Your task to perform on an android device: change text size in settings app Image 0: 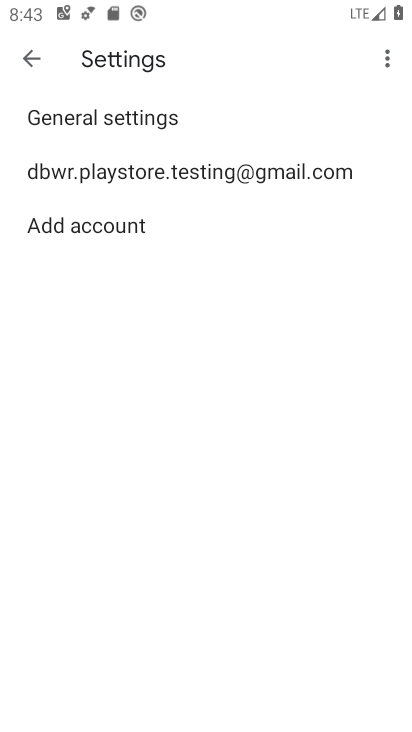
Step 0: press home button
Your task to perform on an android device: change text size in settings app Image 1: 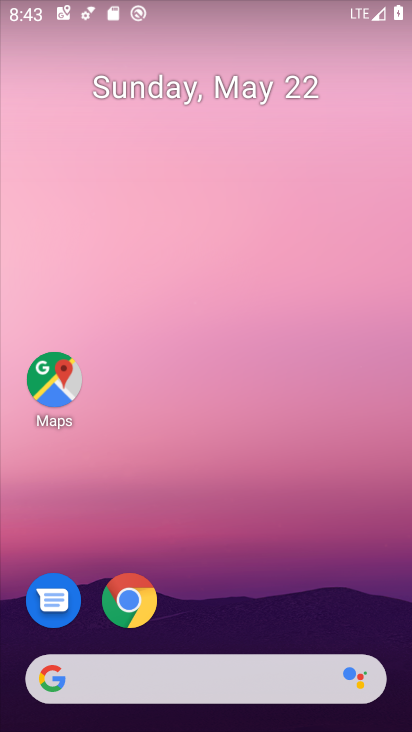
Step 1: drag from (145, 598) to (181, 408)
Your task to perform on an android device: change text size in settings app Image 2: 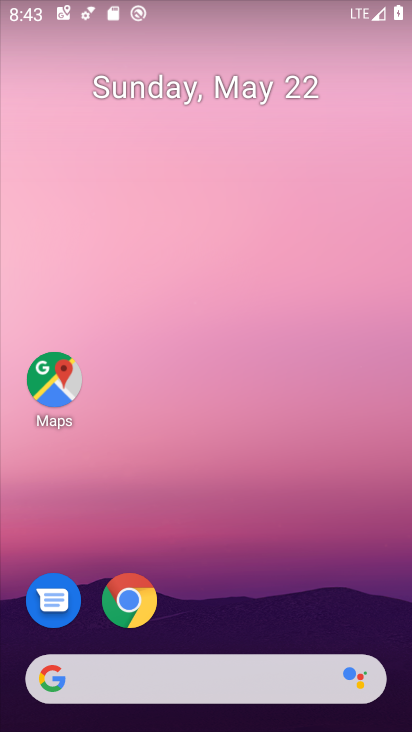
Step 2: drag from (232, 652) to (270, 316)
Your task to perform on an android device: change text size in settings app Image 3: 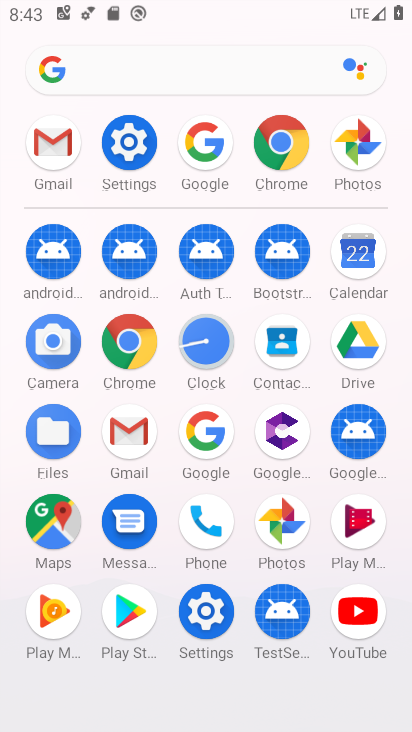
Step 3: click (131, 147)
Your task to perform on an android device: change text size in settings app Image 4: 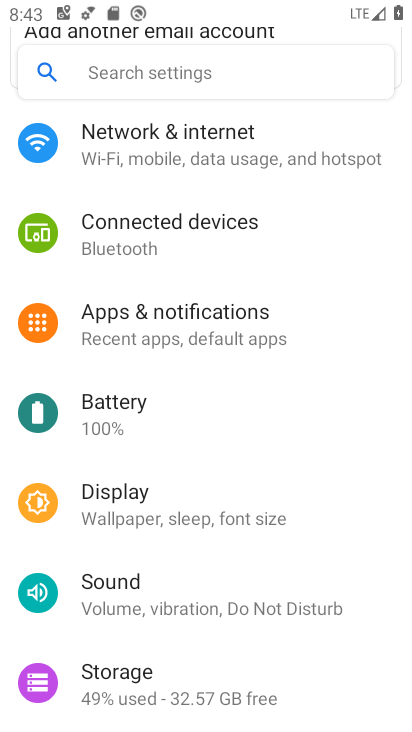
Step 4: drag from (107, 700) to (208, 346)
Your task to perform on an android device: change text size in settings app Image 5: 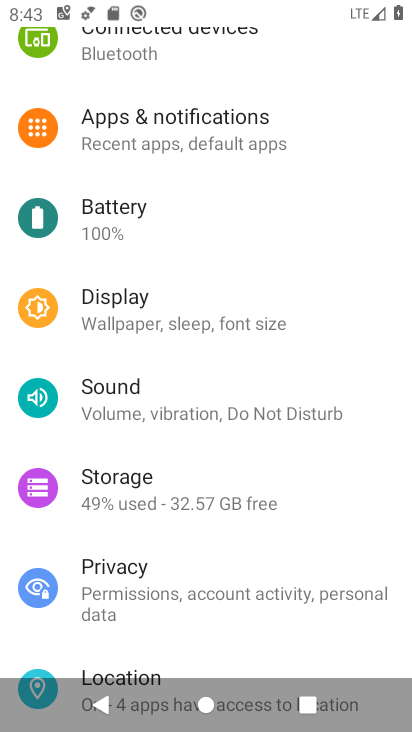
Step 5: drag from (148, 690) to (257, 305)
Your task to perform on an android device: change text size in settings app Image 6: 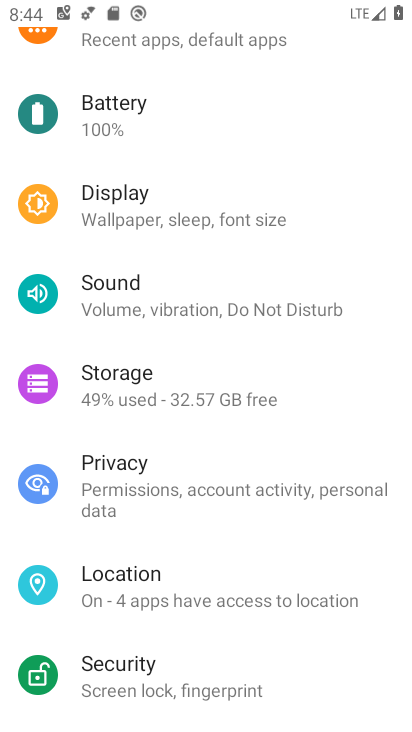
Step 6: drag from (129, 704) to (219, 228)
Your task to perform on an android device: change text size in settings app Image 7: 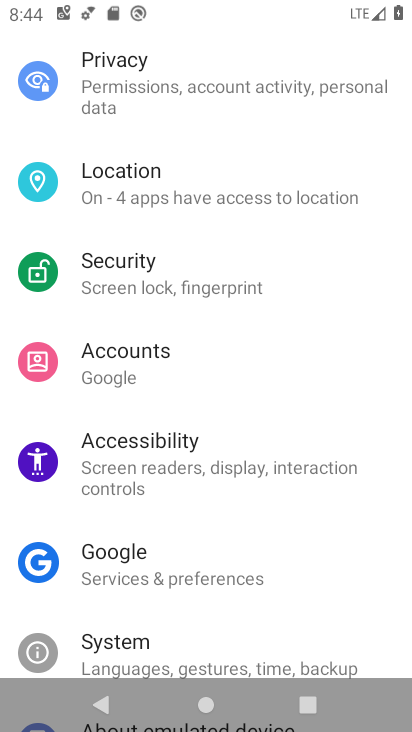
Step 7: drag from (208, 611) to (248, 238)
Your task to perform on an android device: change text size in settings app Image 8: 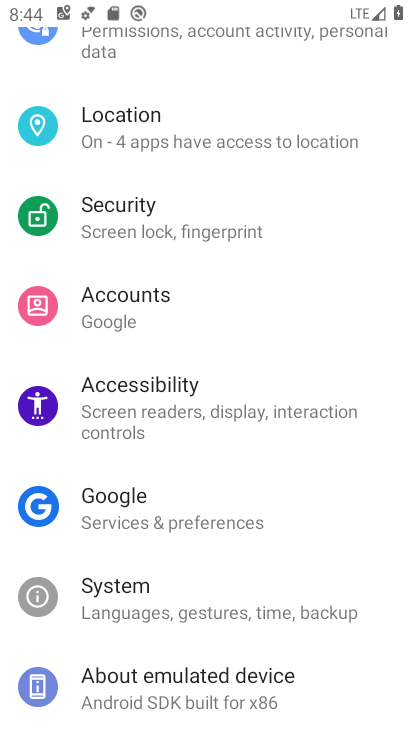
Step 8: click (141, 413)
Your task to perform on an android device: change text size in settings app Image 9: 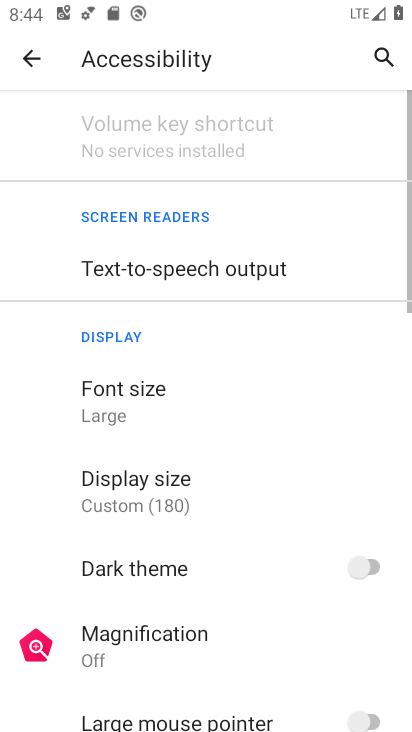
Step 9: click (114, 388)
Your task to perform on an android device: change text size in settings app Image 10: 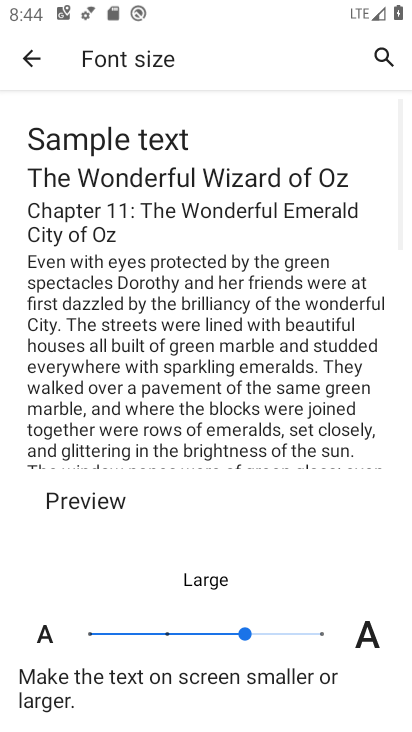
Step 10: click (175, 635)
Your task to perform on an android device: change text size in settings app Image 11: 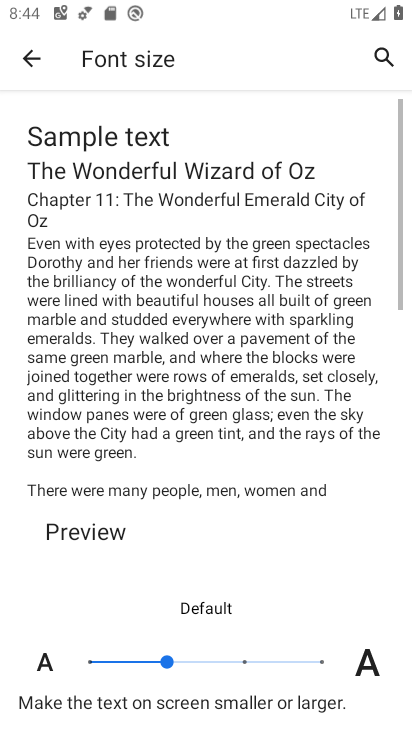
Step 11: task complete